Your task to perform on an android device: Go to settings Image 0: 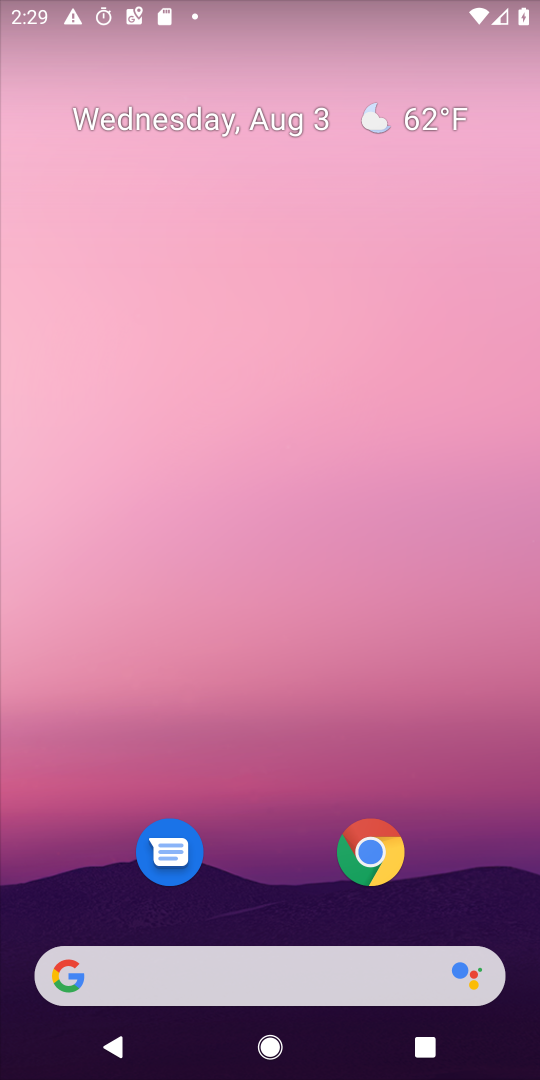
Step 0: drag from (460, 886) to (343, 105)
Your task to perform on an android device: Go to settings Image 1: 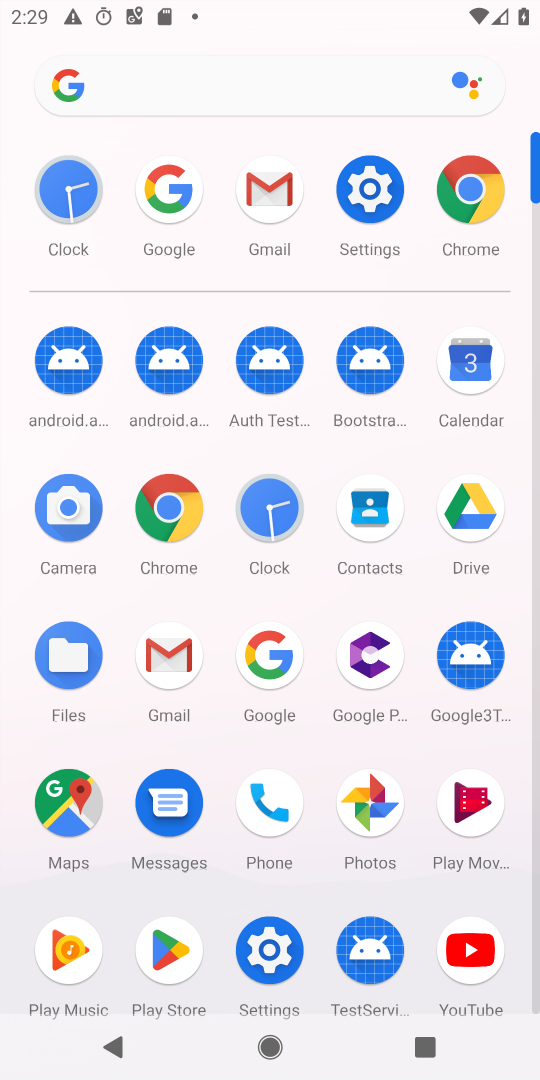
Step 1: click (290, 956)
Your task to perform on an android device: Go to settings Image 2: 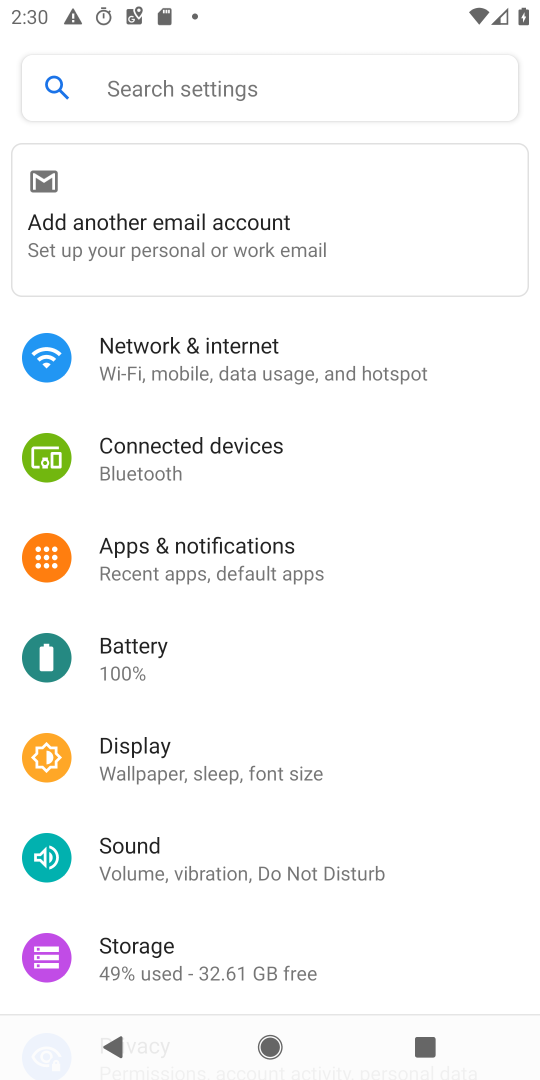
Step 2: task complete